Your task to perform on an android device: Open Chrome and go to settings Image 0: 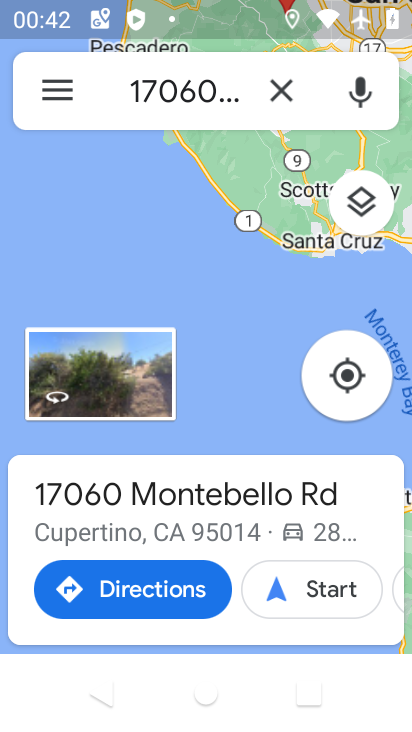
Step 0: drag from (270, 400) to (288, 180)
Your task to perform on an android device: Open Chrome and go to settings Image 1: 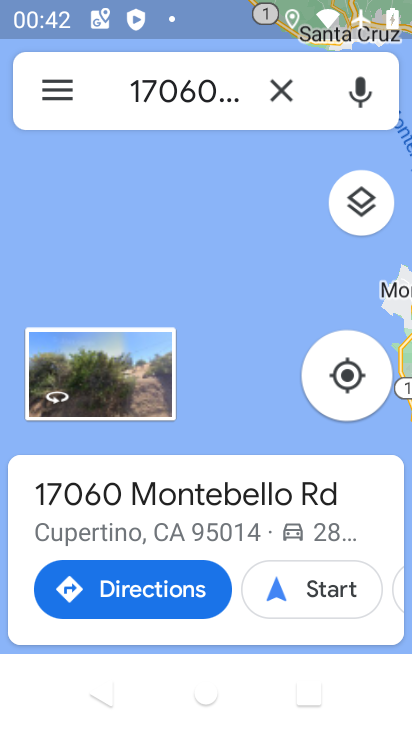
Step 1: press home button
Your task to perform on an android device: Open Chrome and go to settings Image 2: 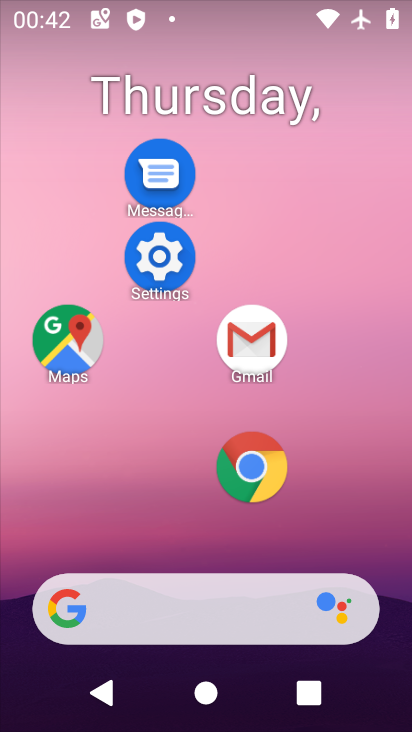
Step 2: click (247, 457)
Your task to perform on an android device: Open Chrome and go to settings Image 3: 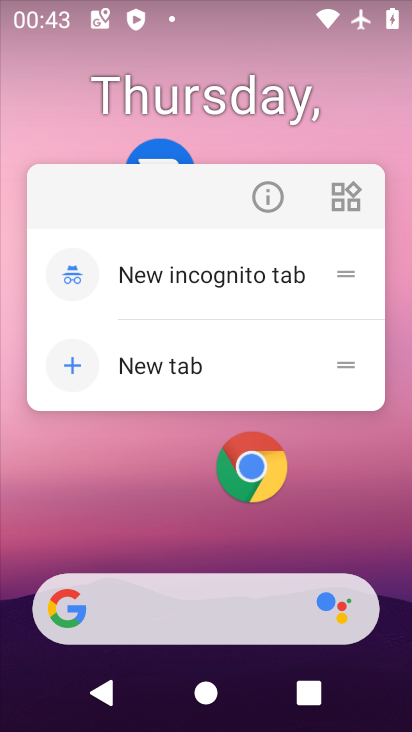
Step 3: click (267, 194)
Your task to perform on an android device: Open Chrome and go to settings Image 4: 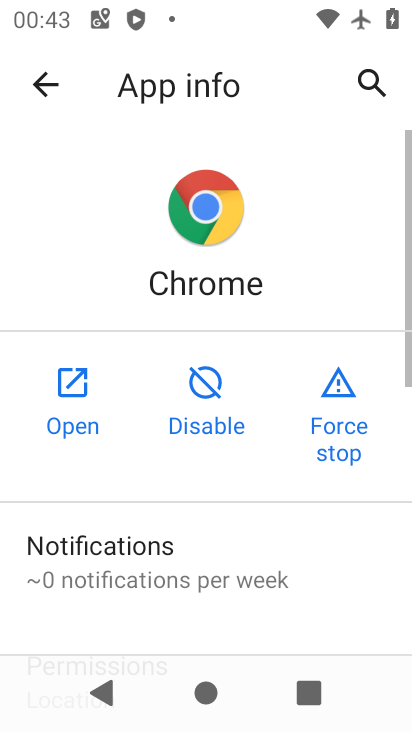
Step 4: click (80, 375)
Your task to perform on an android device: Open Chrome and go to settings Image 5: 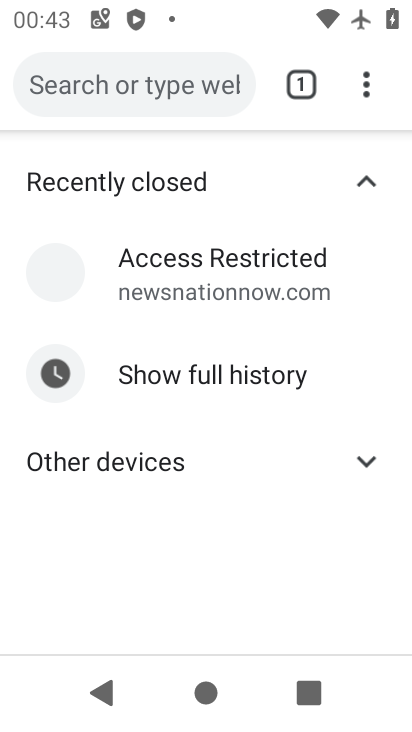
Step 5: click (369, 83)
Your task to perform on an android device: Open Chrome and go to settings Image 6: 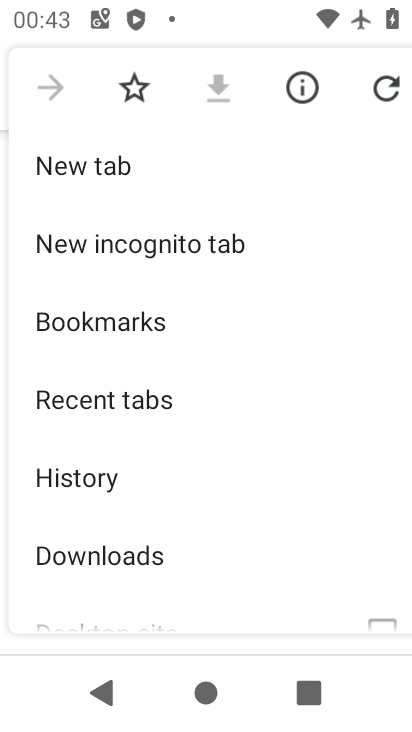
Step 6: drag from (100, 597) to (146, 155)
Your task to perform on an android device: Open Chrome and go to settings Image 7: 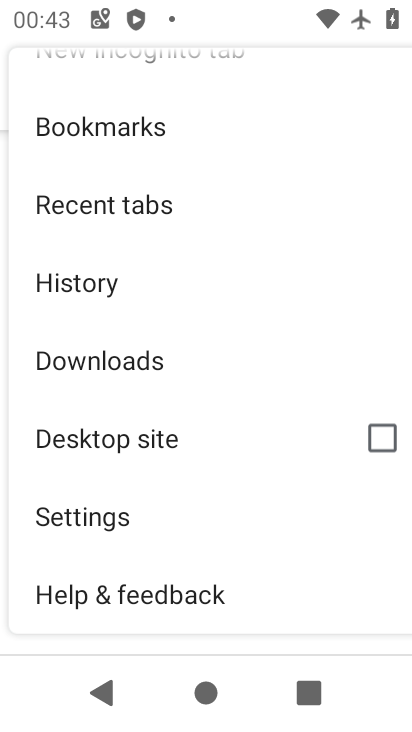
Step 7: click (116, 534)
Your task to perform on an android device: Open Chrome and go to settings Image 8: 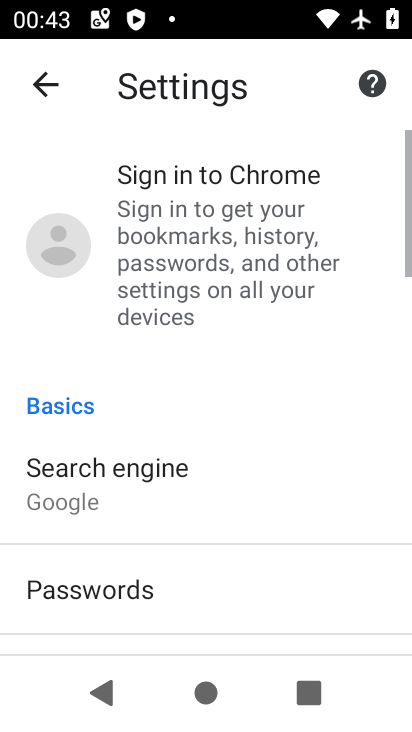
Step 8: task complete